Your task to perform on an android device: open app "Facebook Lite" (install if not already installed) Image 0: 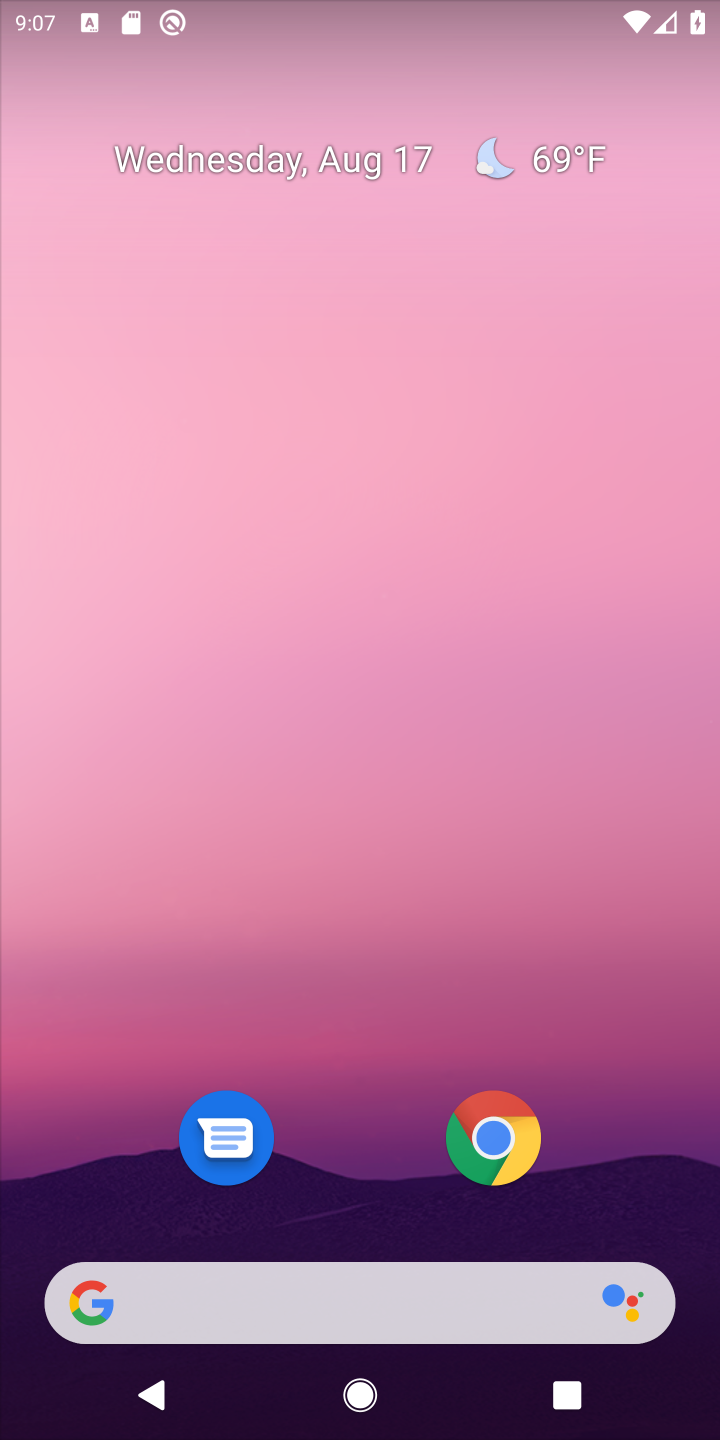
Step 0: drag from (287, 1045) to (310, 273)
Your task to perform on an android device: open app "Facebook Lite" (install if not already installed) Image 1: 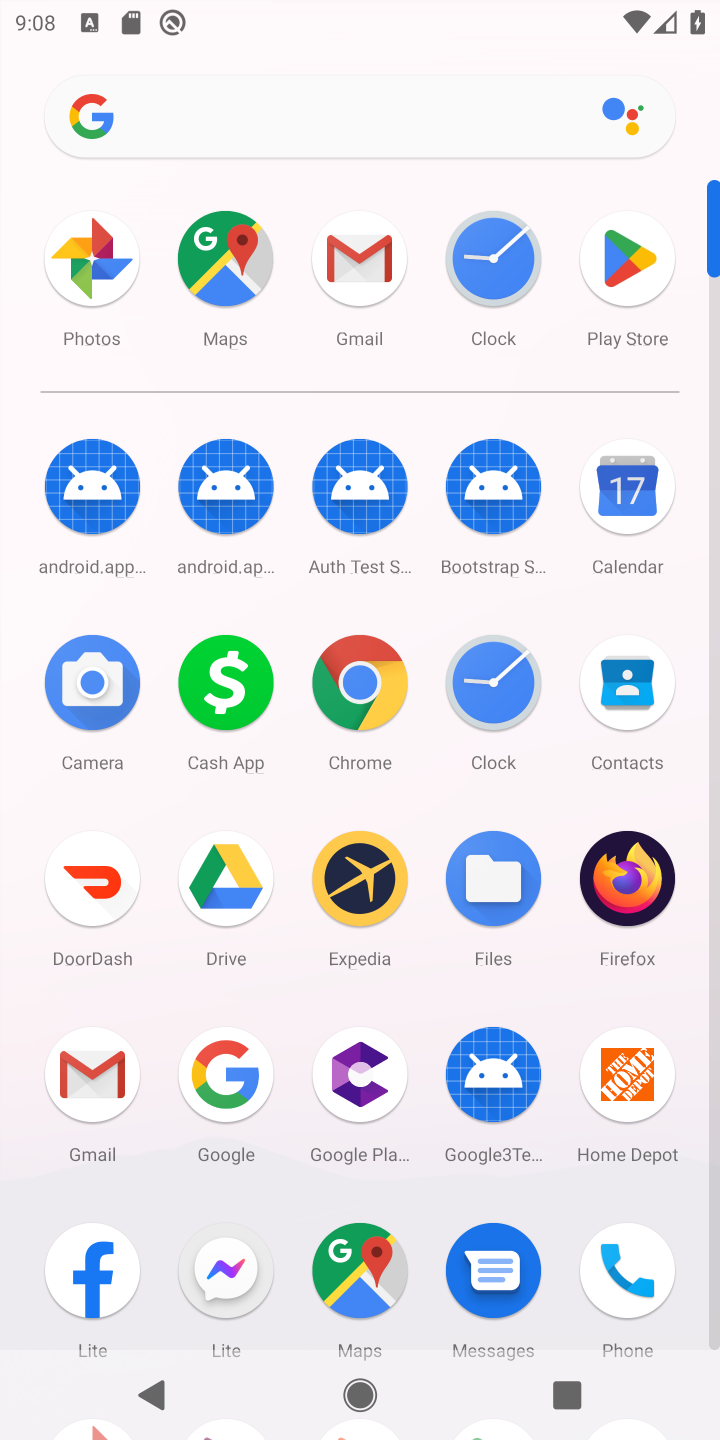
Step 1: click (622, 254)
Your task to perform on an android device: open app "Facebook Lite" (install if not already installed) Image 2: 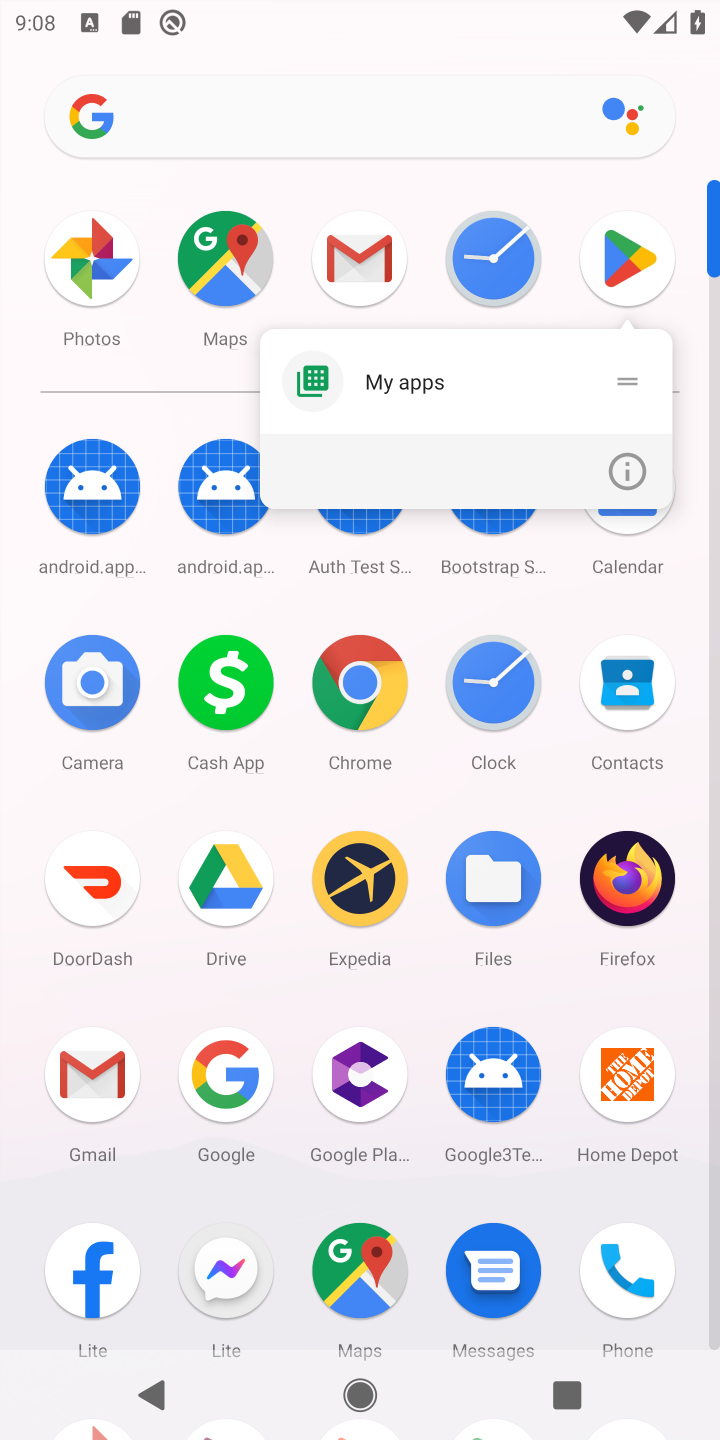
Step 2: click (628, 255)
Your task to perform on an android device: open app "Facebook Lite" (install if not already installed) Image 3: 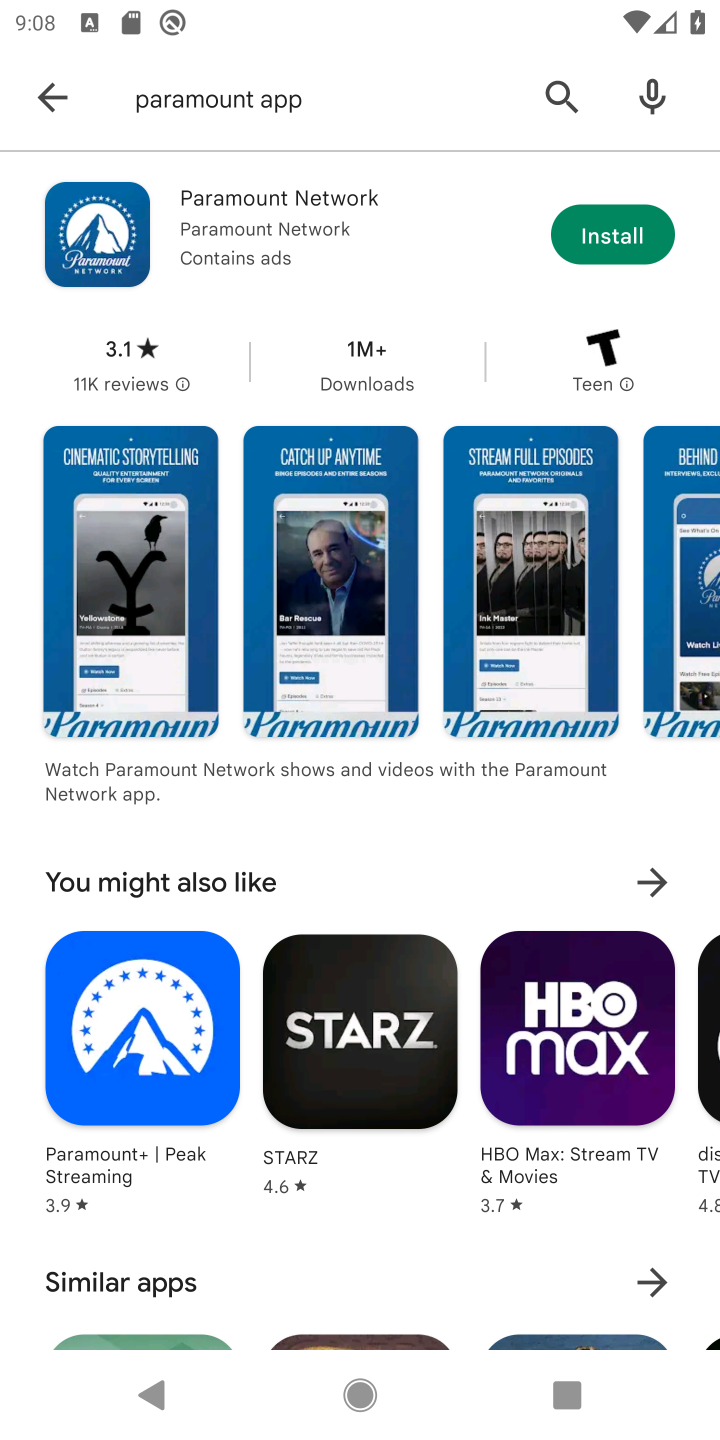
Step 3: click (80, 68)
Your task to perform on an android device: open app "Facebook Lite" (install if not already installed) Image 4: 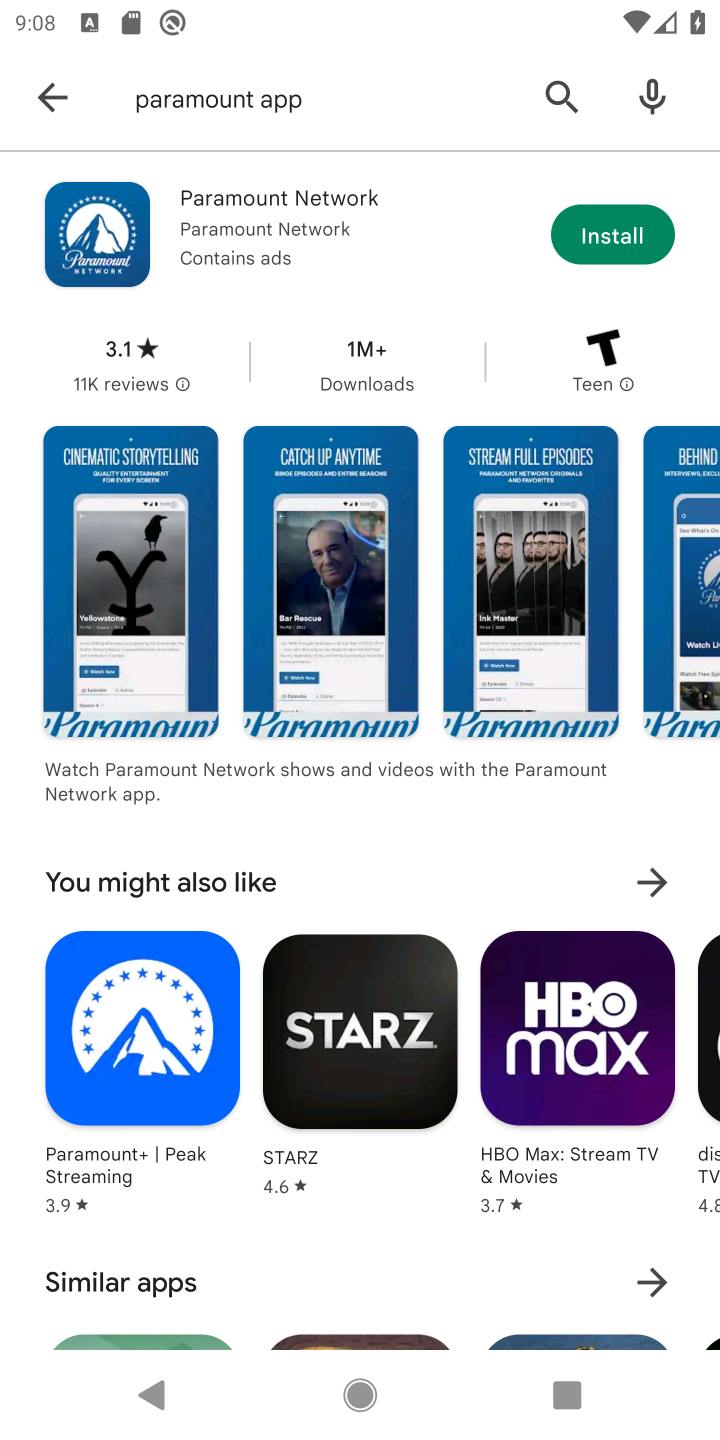
Step 4: click (51, 87)
Your task to perform on an android device: open app "Facebook Lite" (install if not already installed) Image 5: 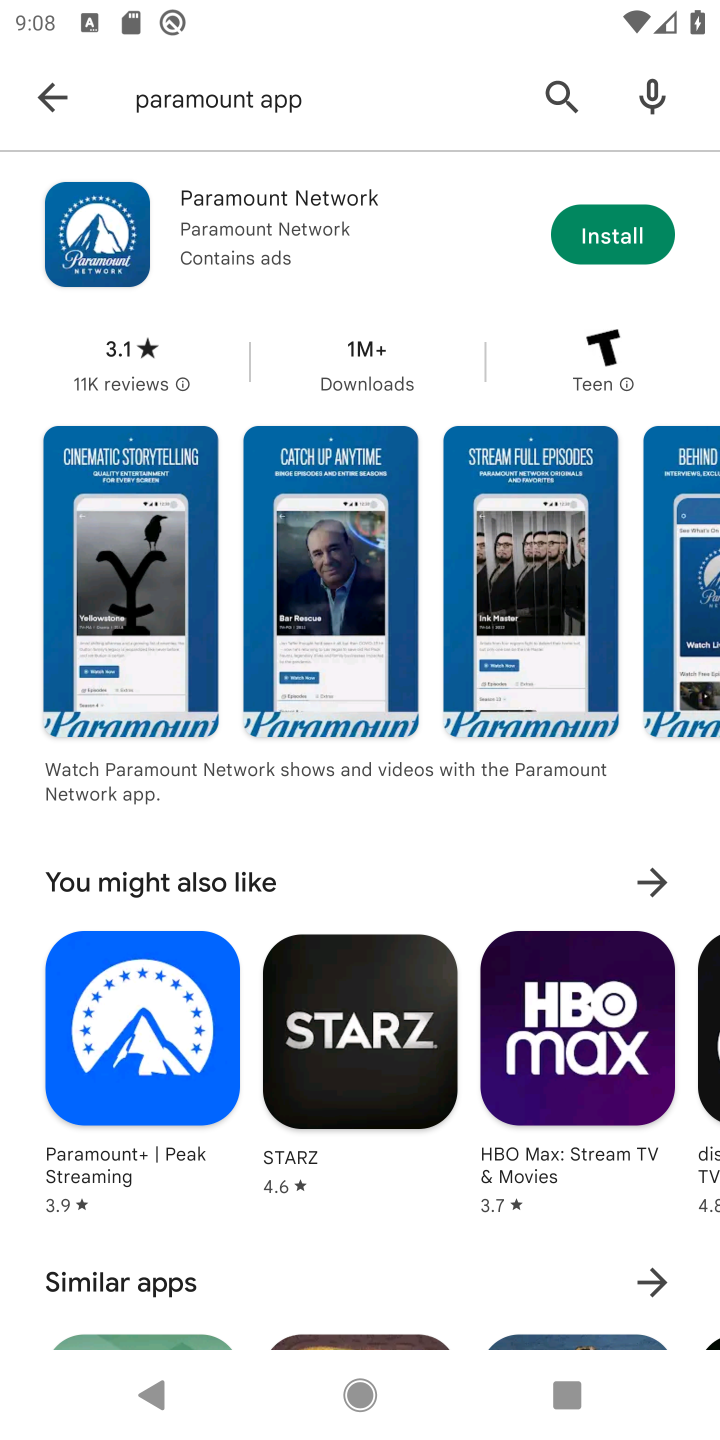
Step 5: click (570, 90)
Your task to perform on an android device: open app "Facebook Lite" (install if not already installed) Image 6: 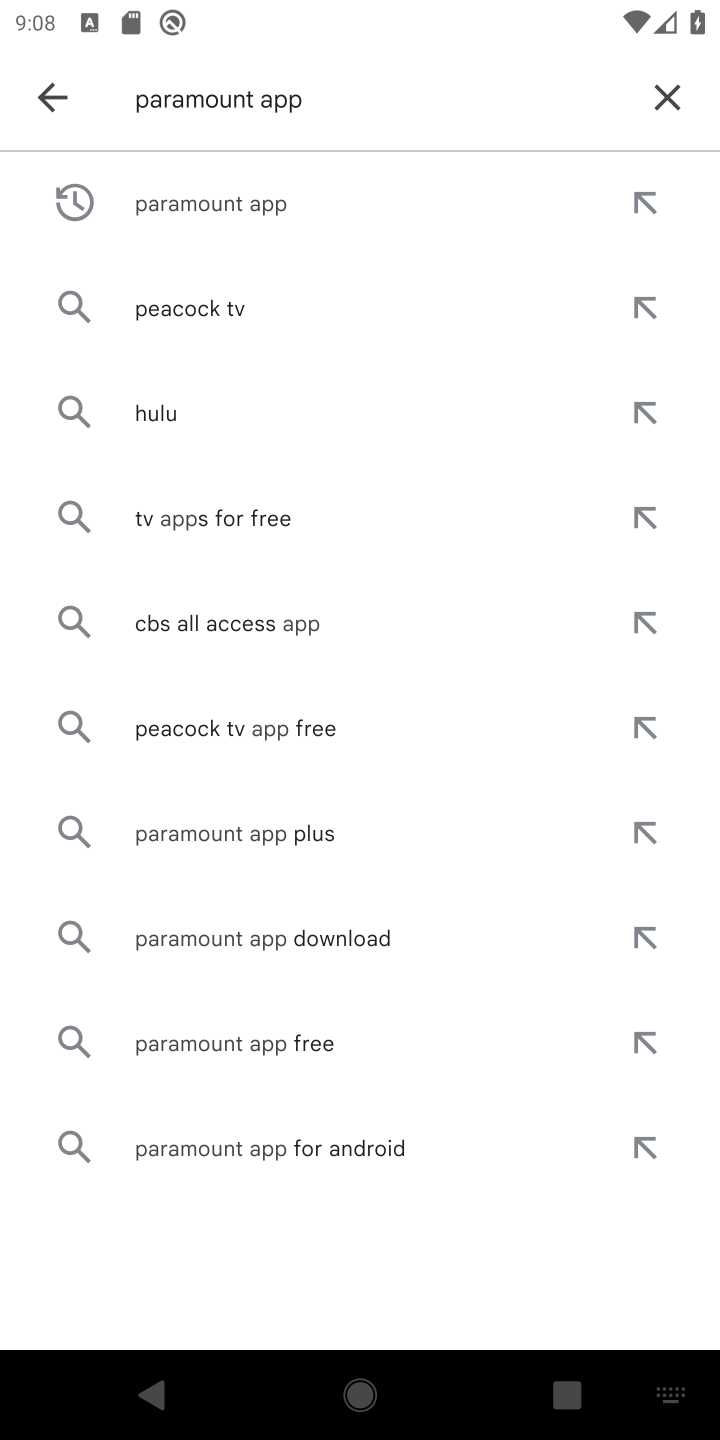
Step 6: click (672, 89)
Your task to perform on an android device: open app "Facebook Lite" (install if not already installed) Image 7: 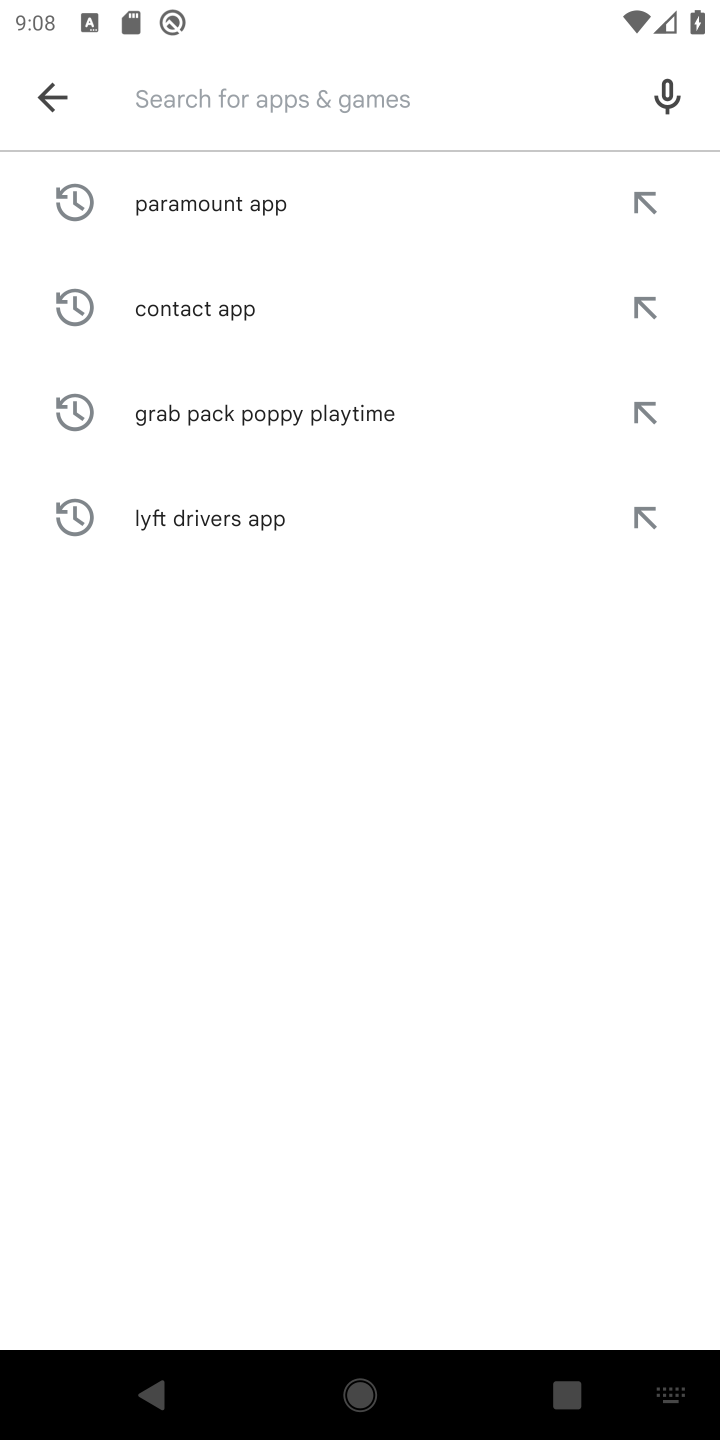
Step 7: click (328, 97)
Your task to perform on an android device: open app "Facebook Lite" (install if not already installed) Image 8: 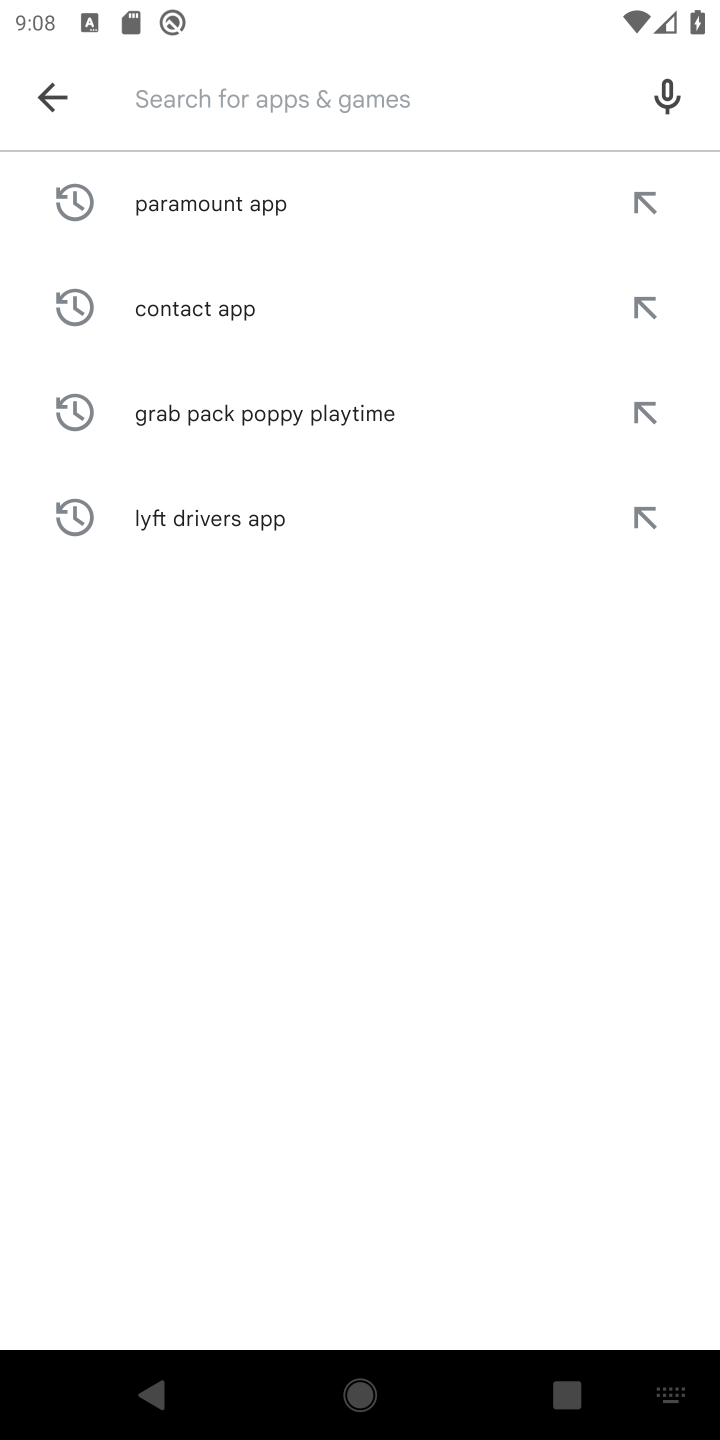
Step 8: type "facebook lite "
Your task to perform on an android device: open app "Facebook Lite" (install if not already installed) Image 9: 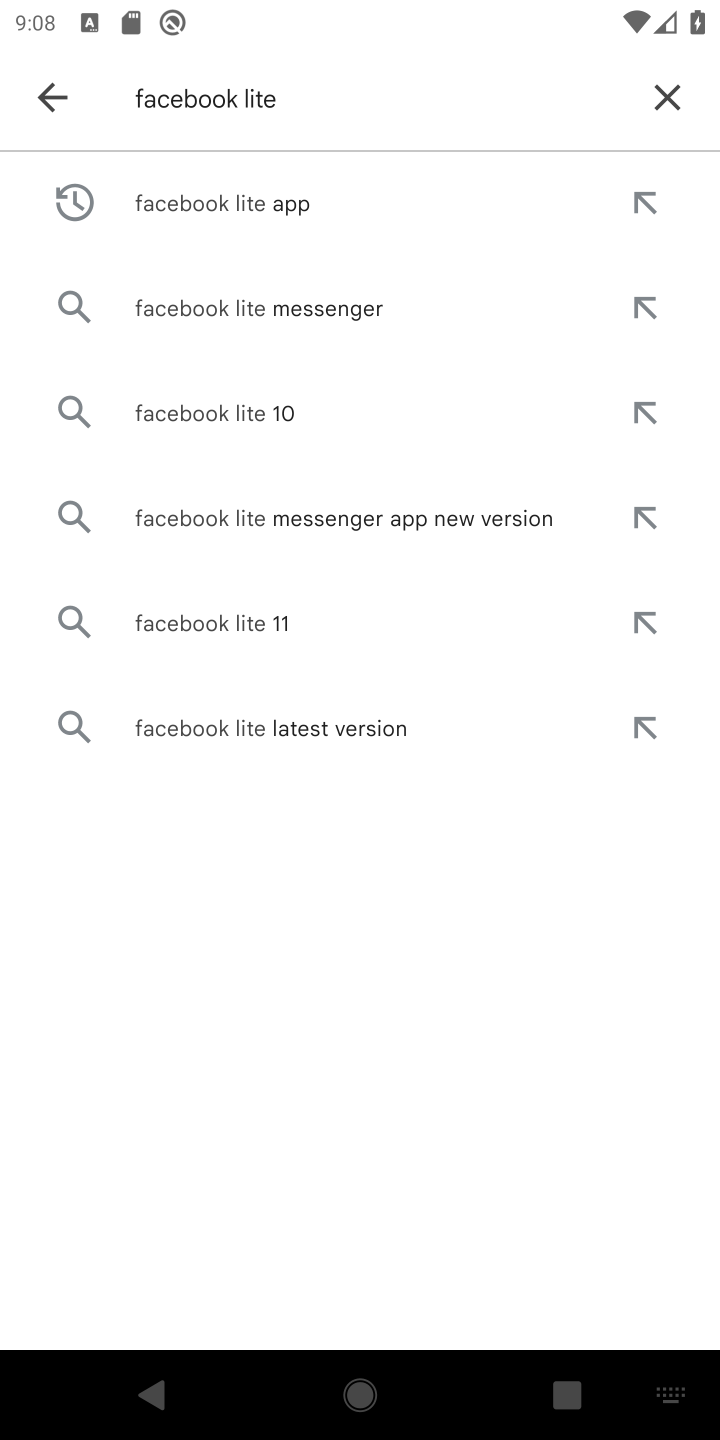
Step 9: click (274, 218)
Your task to perform on an android device: open app "Facebook Lite" (install if not already installed) Image 10: 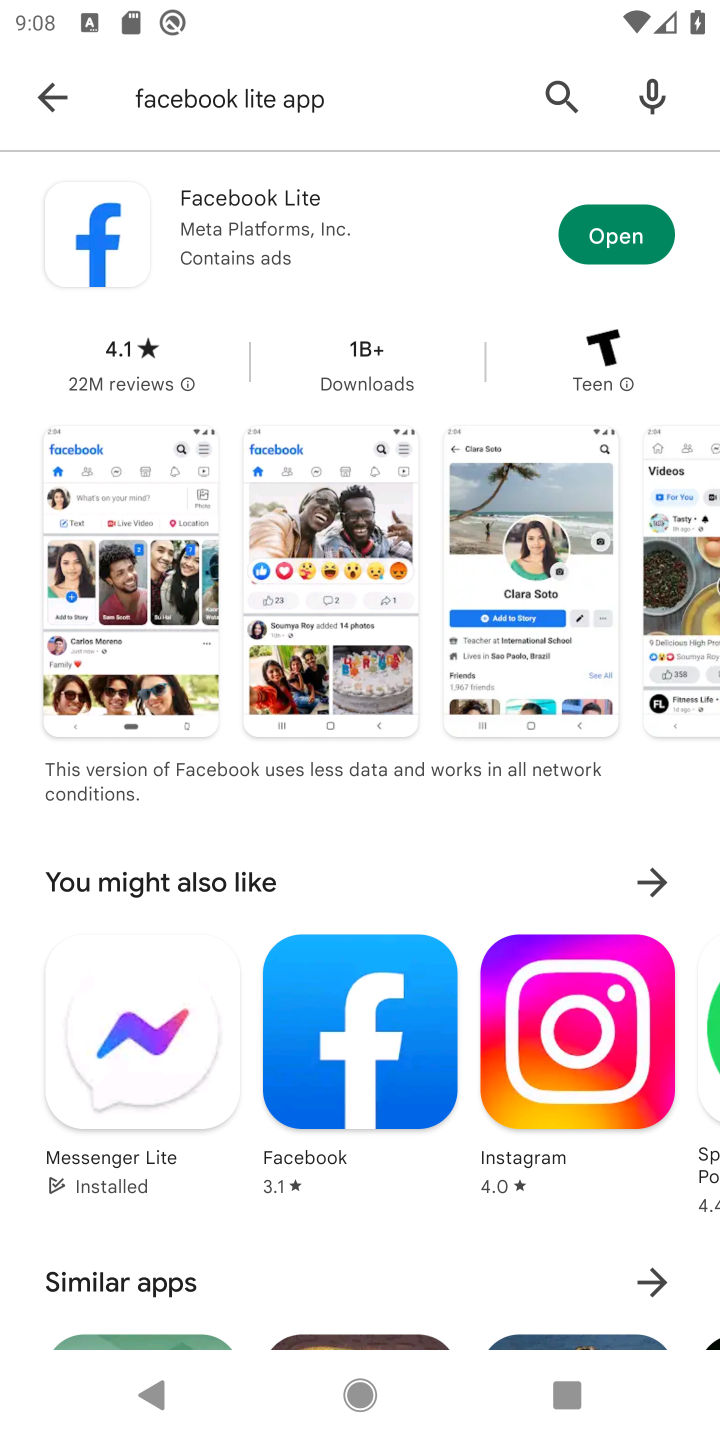
Step 10: click (589, 227)
Your task to perform on an android device: open app "Facebook Lite" (install if not already installed) Image 11: 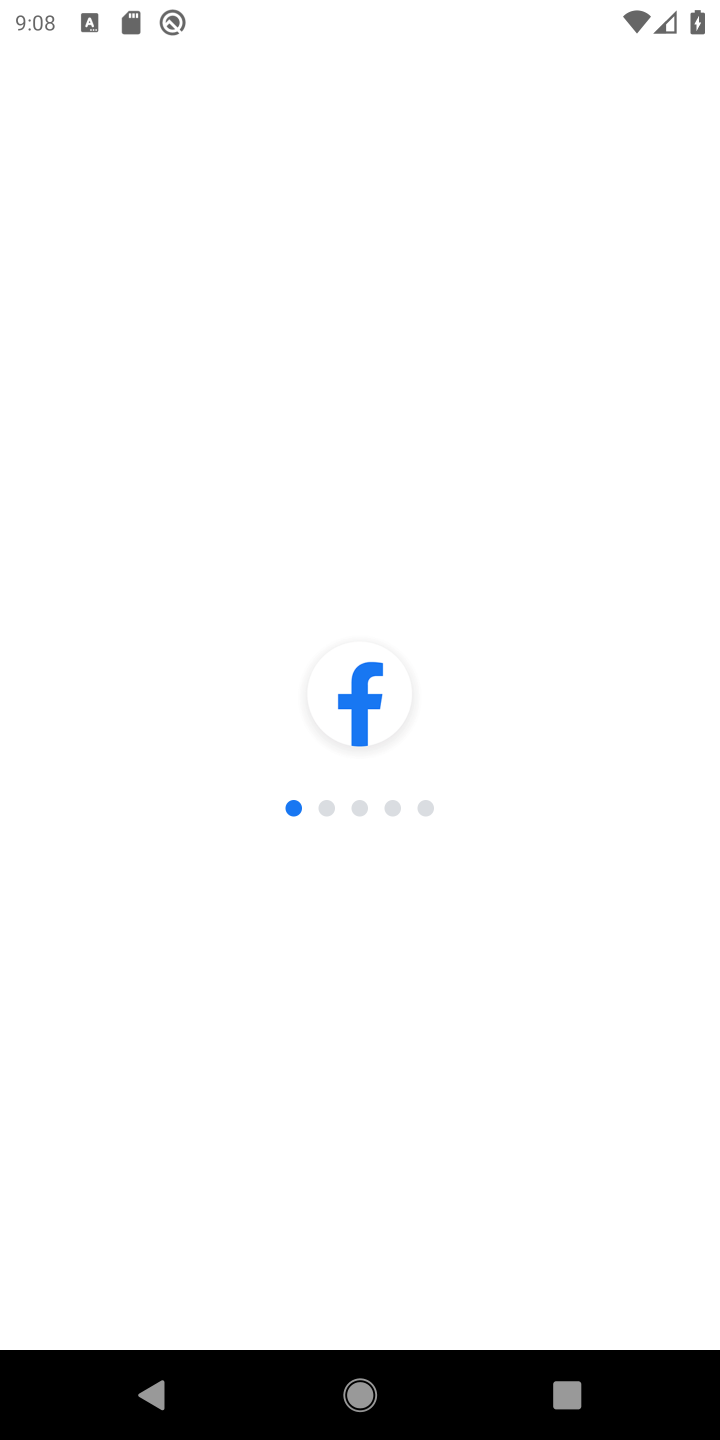
Step 11: click (328, 798)
Your task to perform on an android device: open app "Facebook Lite" (install if not already installed) Image 12: 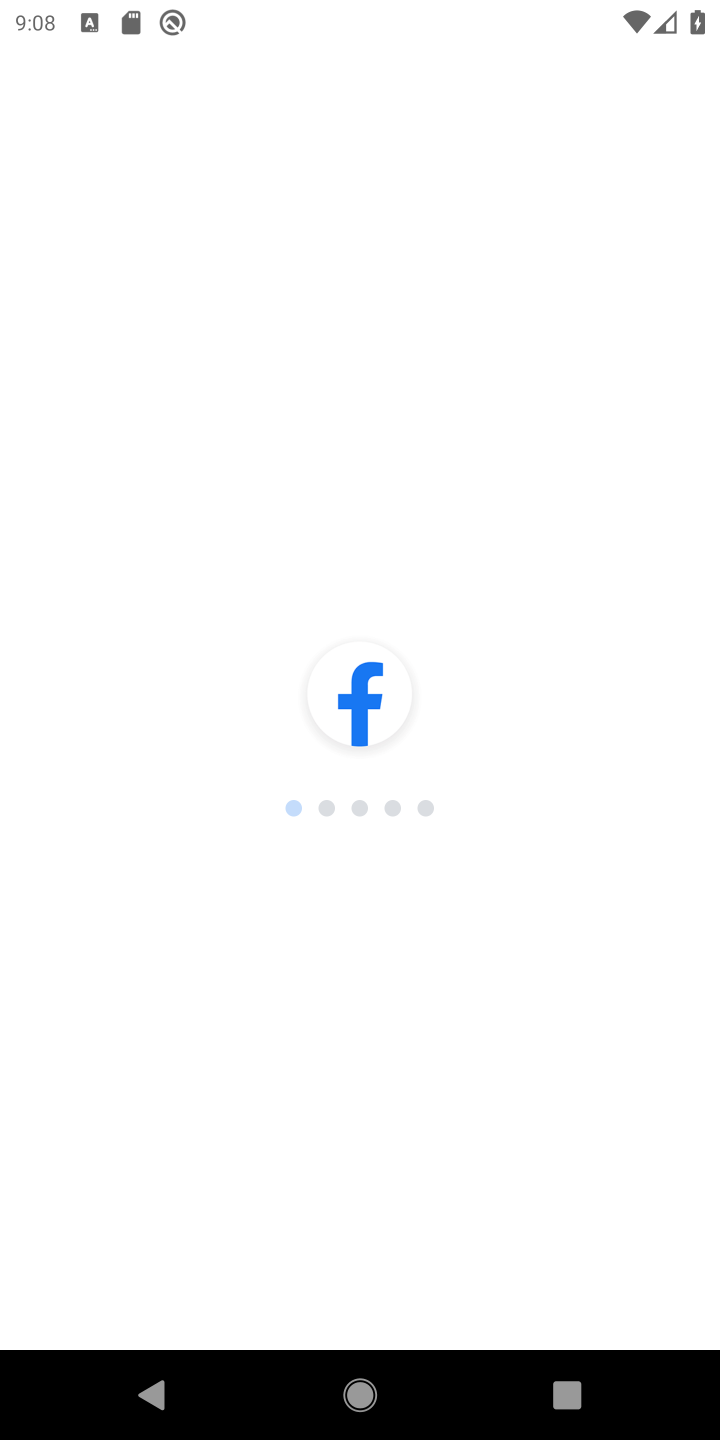
Step 12: click (381, 817)
Your task to perform on an android device: open app "Facebook Lite" (install if not already installed) Image 13: 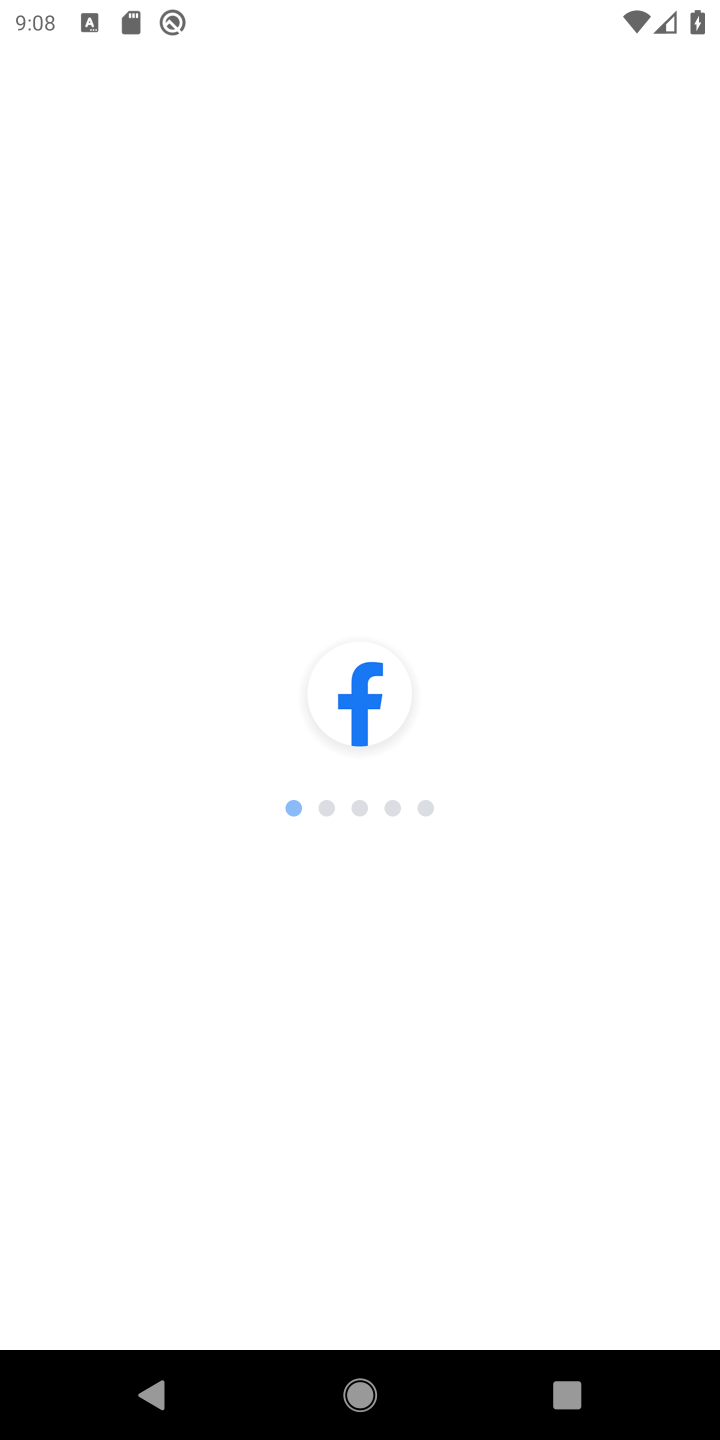
Step 13: click (415, 795)
Your task to perform on an android device: open app "Facebook Lite" (install if not already installed) Image 14: 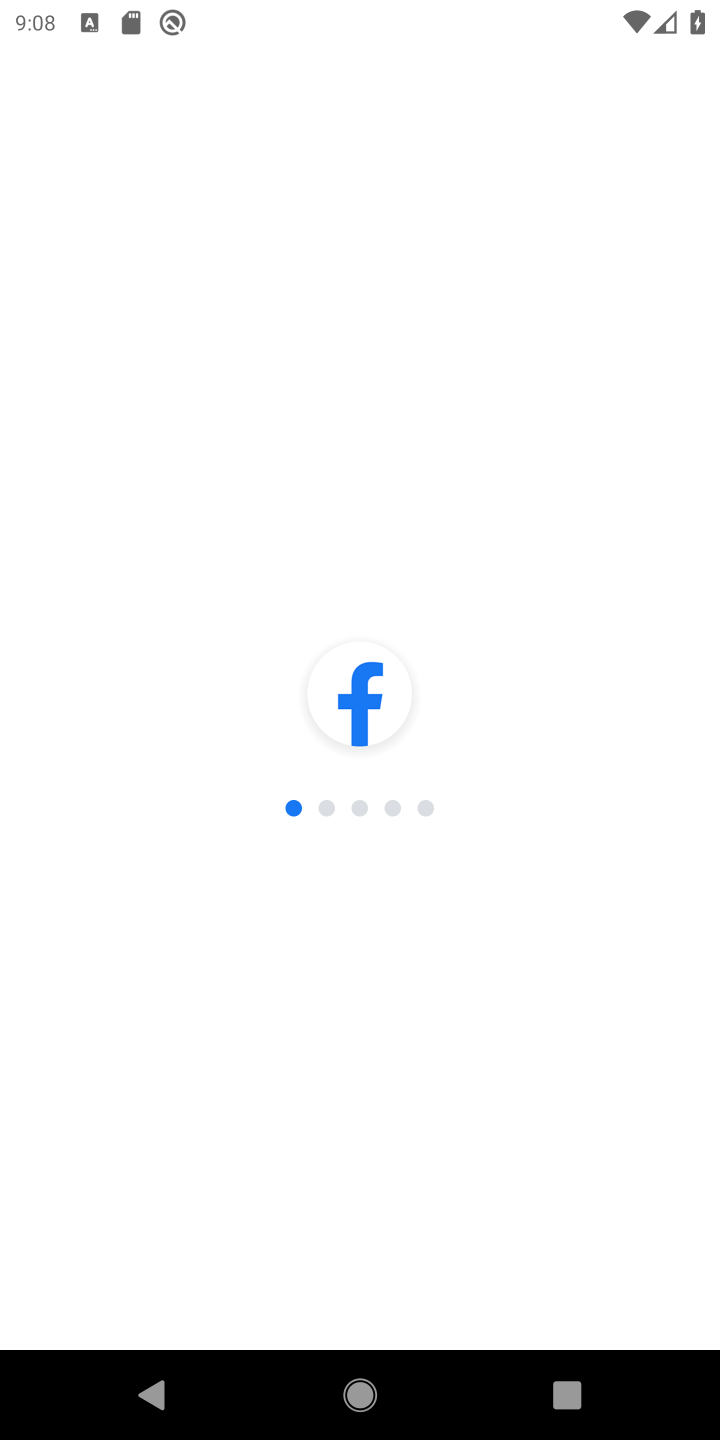
Step 14: drag from (412, 823) to (0, 770)
Your task to perform on an android device: open app "Facebook Lite" (install if not already installed) Image 15: 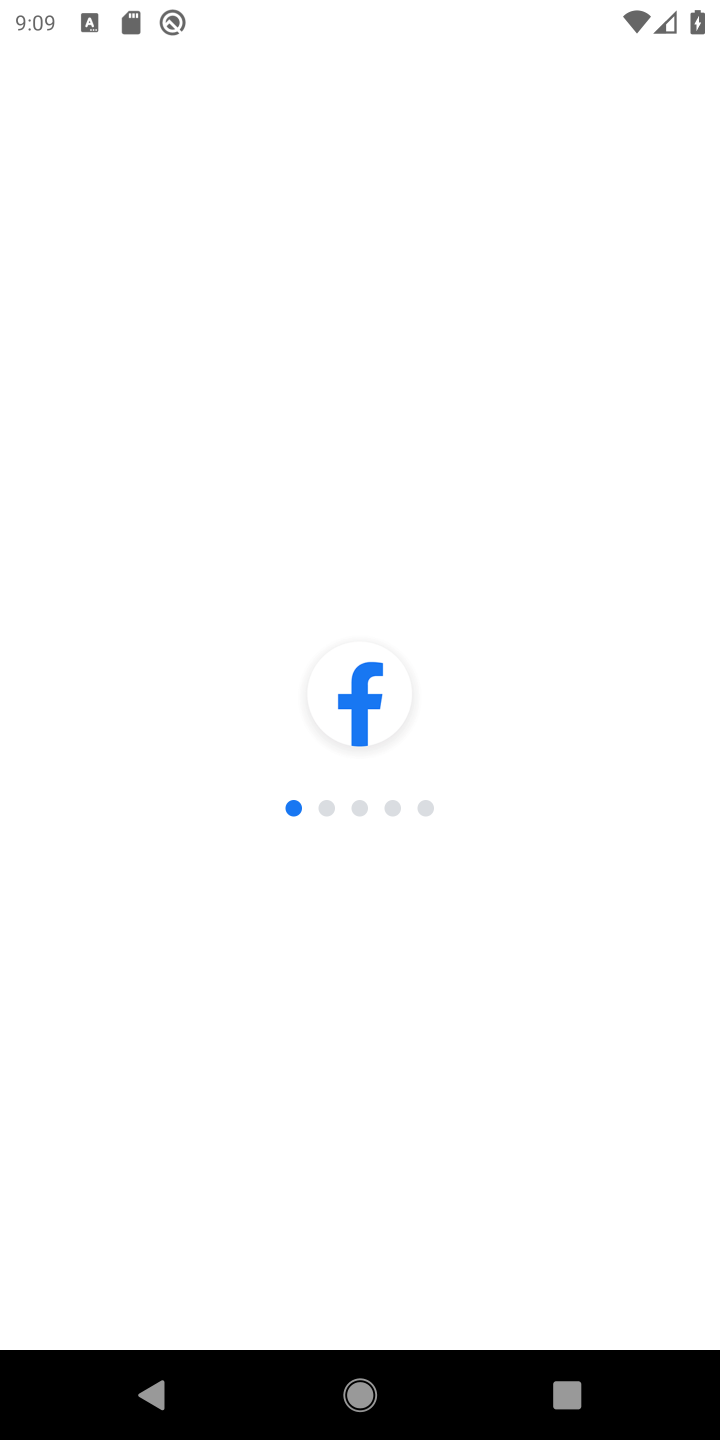
Step 15: click (315, 819)
Your task to perform on an android device: open app "Facebook Lite" (install if not already installed) Image 16: 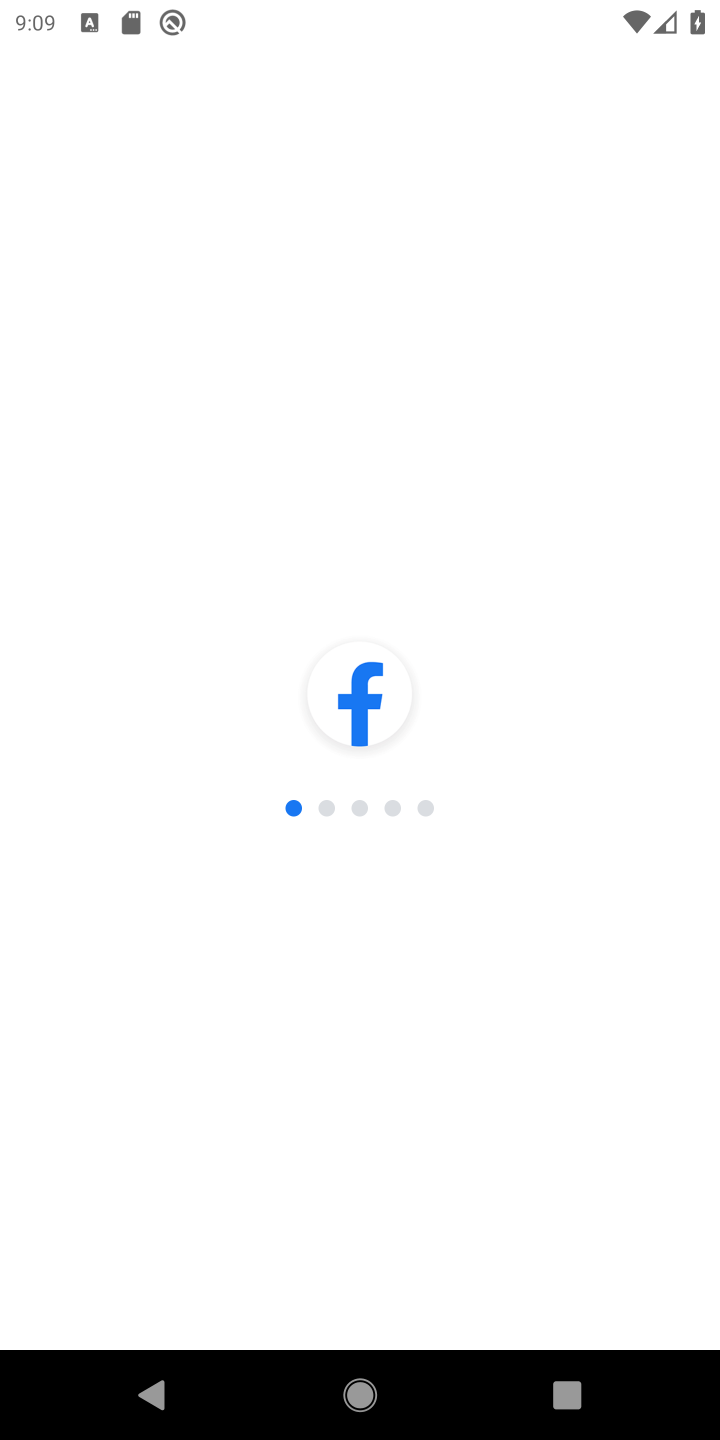
Step 16: task complete